Your task to perform on an android device: toggle airplane mode Image 0: 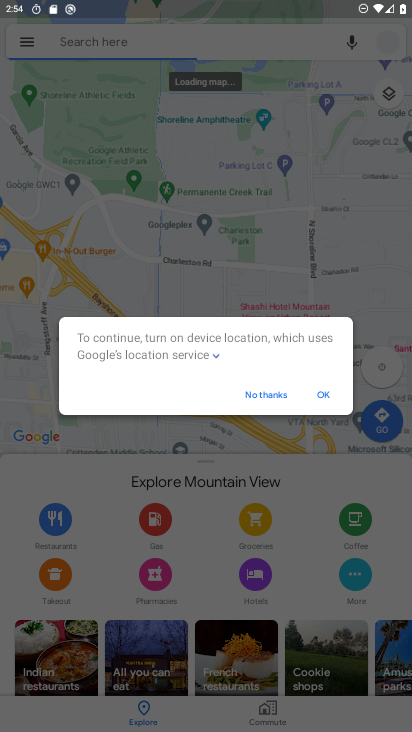
Step 0: press home button
Your task to perform on an android device: toggle airplane mode Image 1: 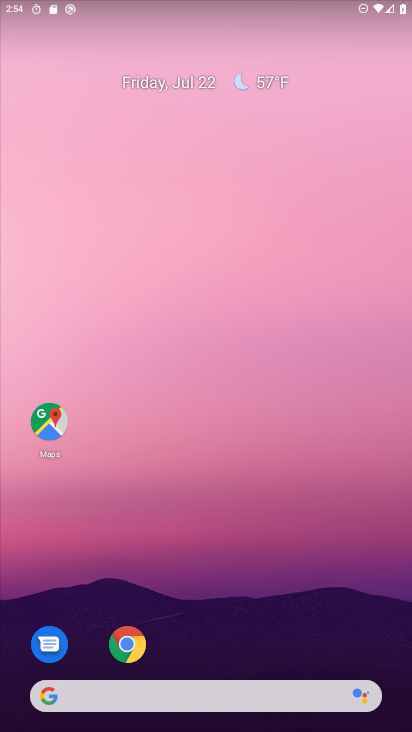
Step 1: drag from (213, 634) to (211, 177)
Your task to perform on an android device: toggle airplane mode Image 2: 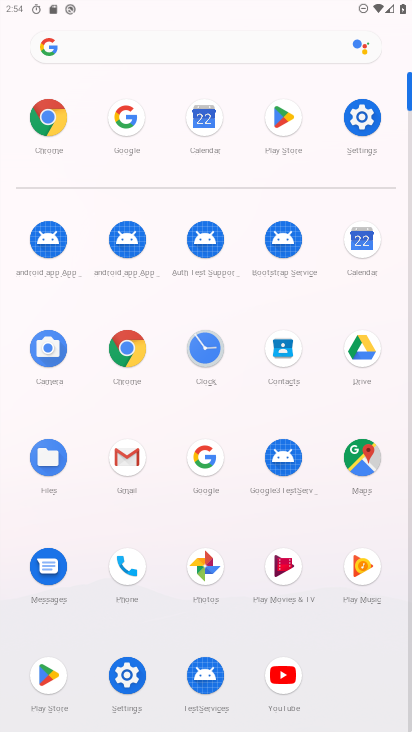
Step 2: click (343, 132)
Your task to perform on an android device: toggle airplane mode Image 3: 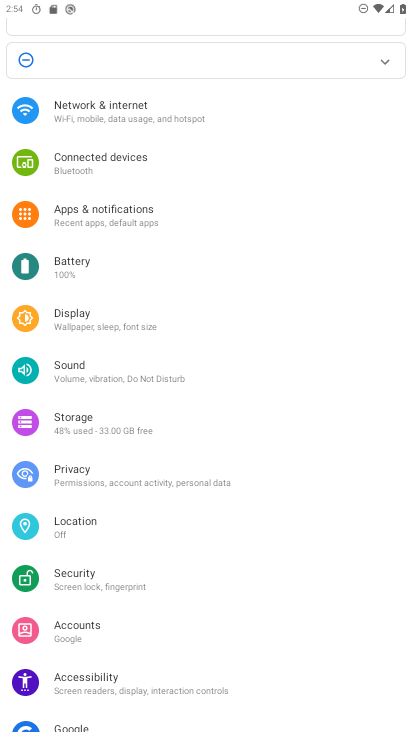
Step 3: click (176, 132)
Your task to perform on an android device: toggle airplane mode Image 4: 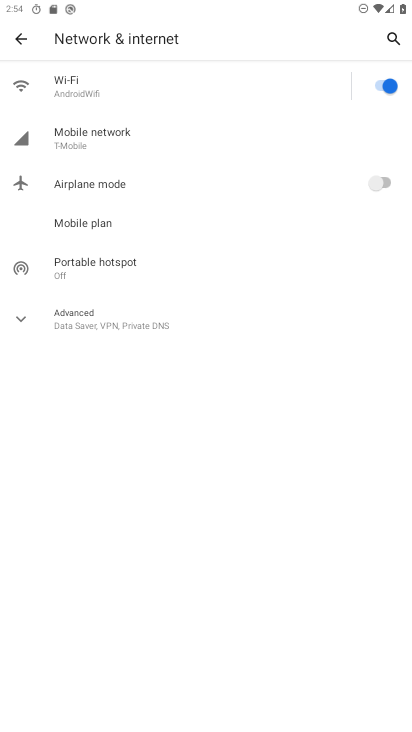
Step 4: click (398, 177)
Your task to perform on an android device: toggle airplane mode Image 5: 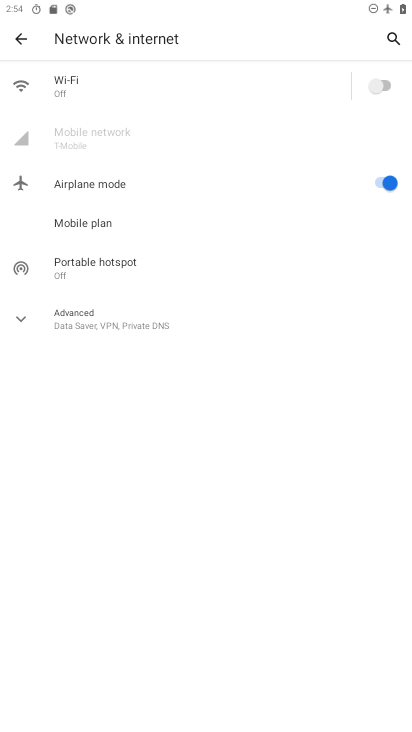
Step 5: task complete